Your task to perform on an android device: Open the phone app and click the voicemail tab. Image 0: 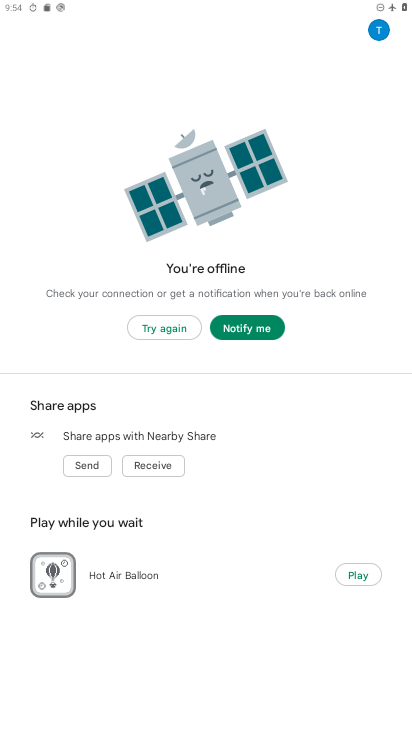
Step 0: press home button
Your task to perform on an android device: Open the phone app and click the voicemail tab. Image 1: 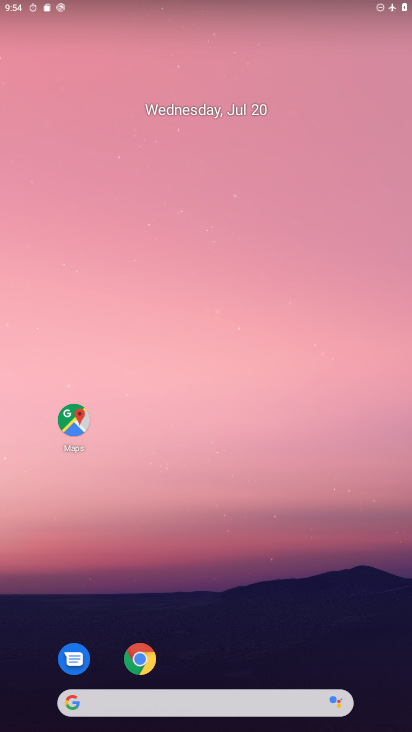
Step 1: drag from (298, 601) to (250, 32)
Your task to perform on an android device: Open the phone app and click the voicemail tab. Image 2: 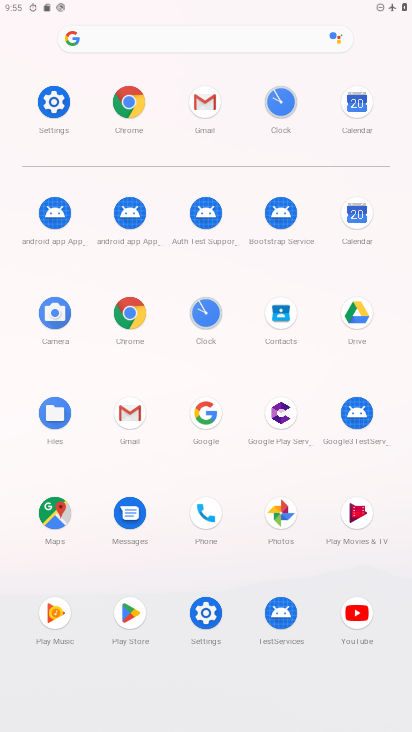
Step 2: click (201, 506)
Your task to perform on an android device: Open the phone app and click the voicemail tab. Image 3: 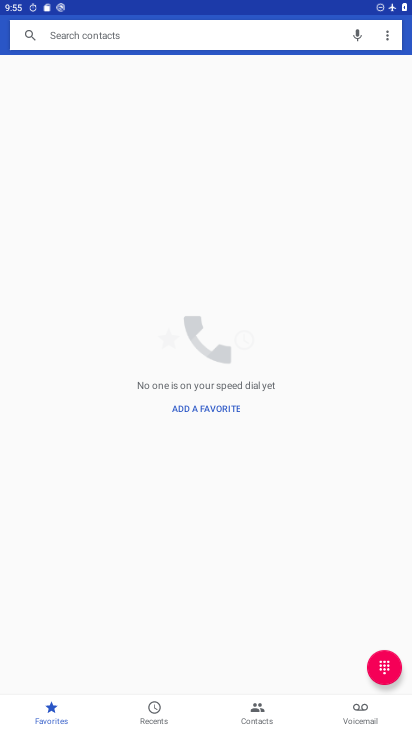
Step 3: click (350, 715)
Your task to perform on an android device: Open the phone app and click the voicemail tab. Image 4: 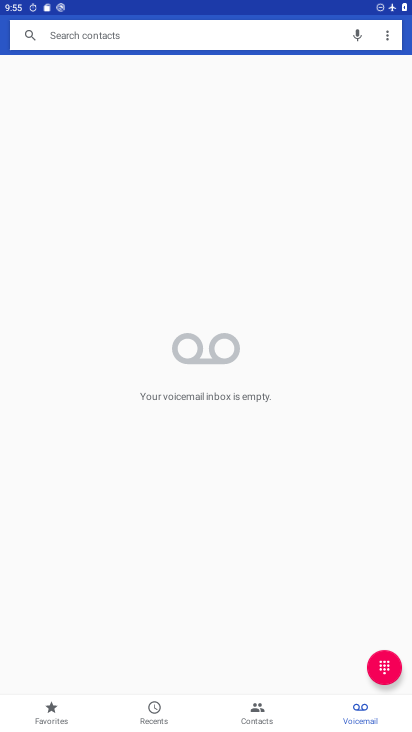
Step 4: click (359, 717)
Your task to perform on an android device: Open the phone app and click the voicemail tab. Image 5: 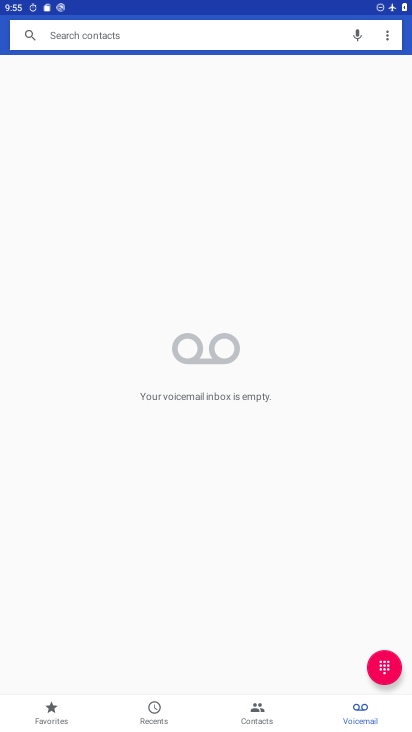
Step 5: task complete